Your task to perform on an android device: Go to Amazon Image 0: 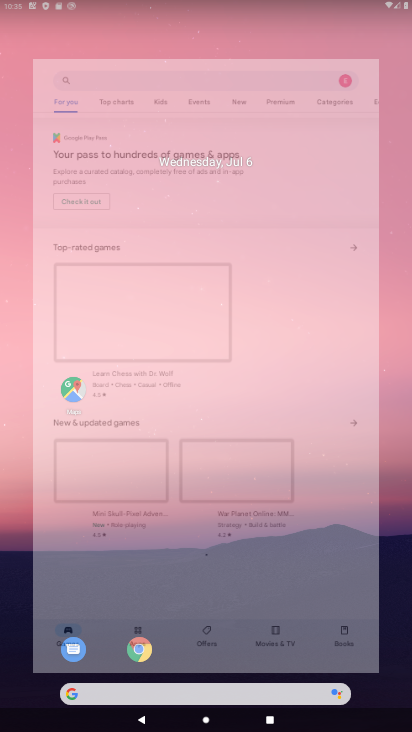
Step 0: drag from (378, 665) to (205, 71)
Your task to perform on an android device: Go to Amazon Image 1: 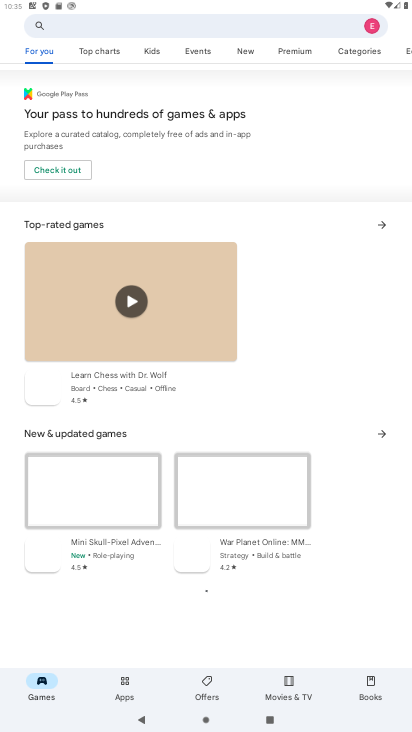
Step 1: press home button
Your task to perform on an android device: Go to Amazon Image 2: 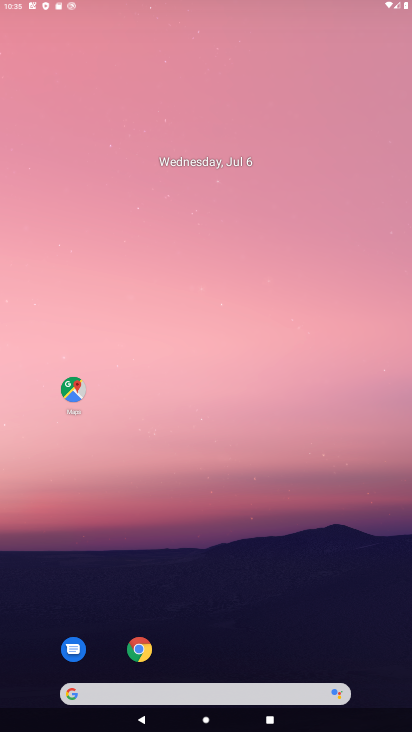
Step 2: drag from (378, 498) to (197, 61)
Your task to perform on an android device: Go to Amazon Image 3: 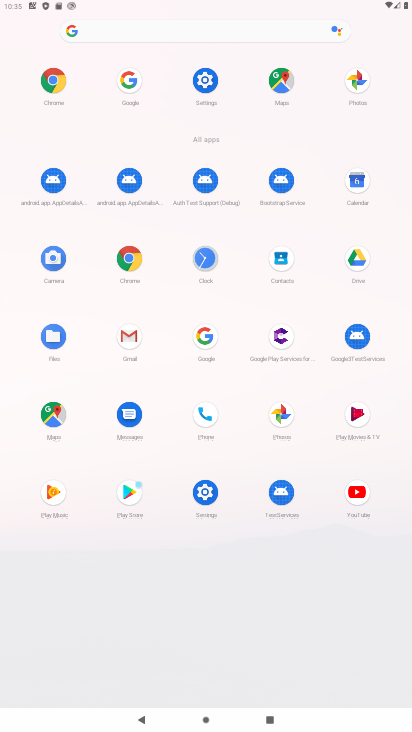
Step 3: click (135, 82)
Your task to perform on an android device: Go to Amazon Image 4: 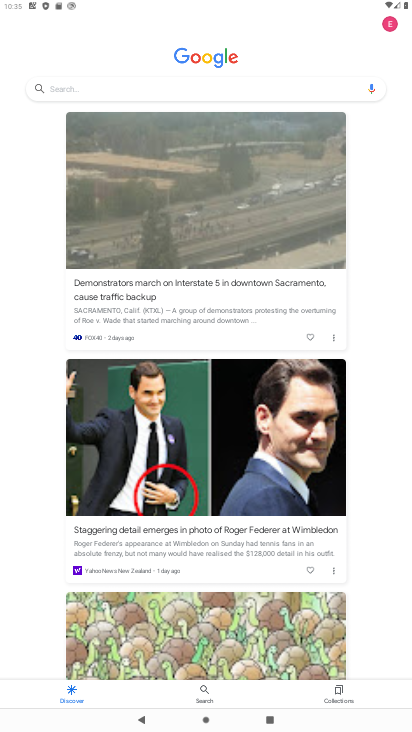
Step 4: click (79, 76)
Your task to perform on an android device: Go to Amazon Image 5: 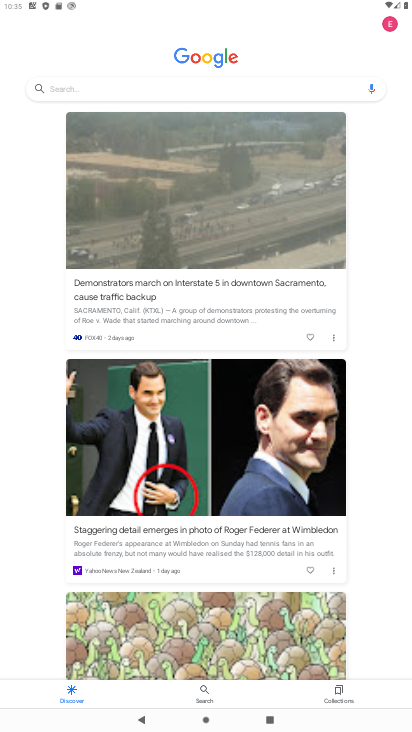
Step 5: click (96, 88)
Your task to perform on an android device: Go to Amazon Image 6: 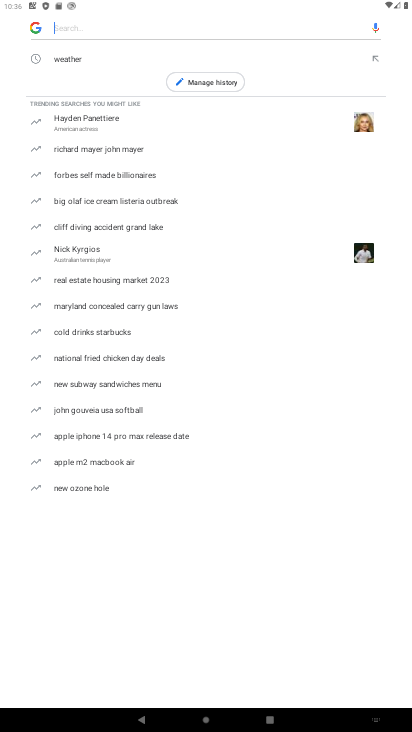
Step 6: type "amazon"
Your task to perform on an android device: Go to Amazon Image 7: 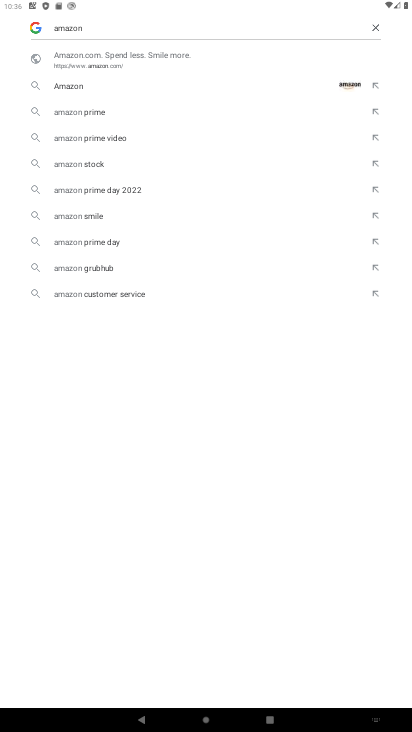
Step 7: click (103, 88)
Your task to perform on an android device: Go to Amazon Image 8: 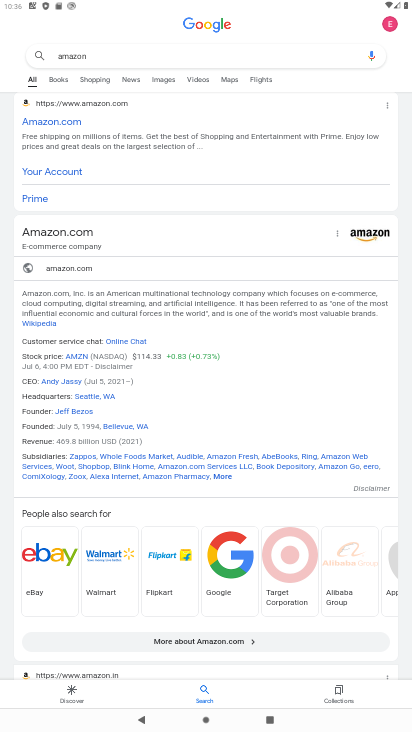
Step 8: task complete